Your task to perform on an android device: Go to Android settings Image 0: 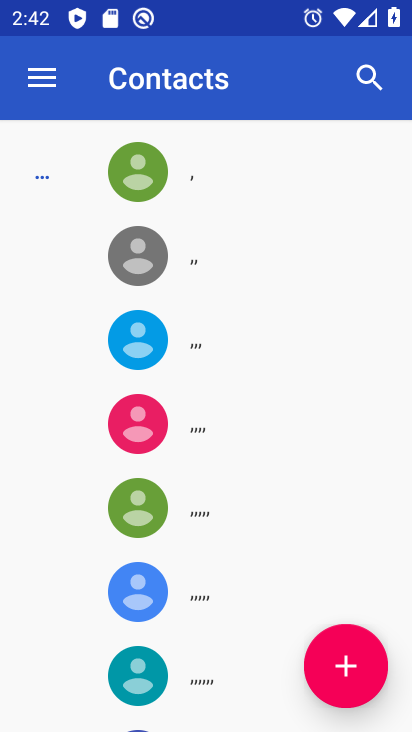
Step 0: press home button
Your task to perform on an android device: Go to Android settings Image 1: 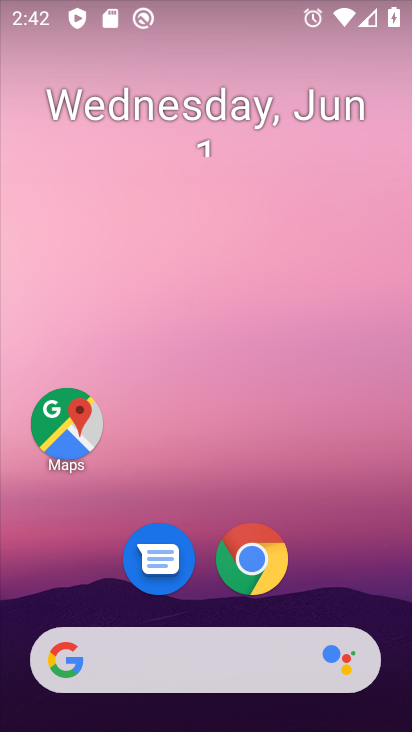
Step 1: drag from (332, 607) to (281, 13)
Your task to perform on an android device: Go to Android settings Image 2: 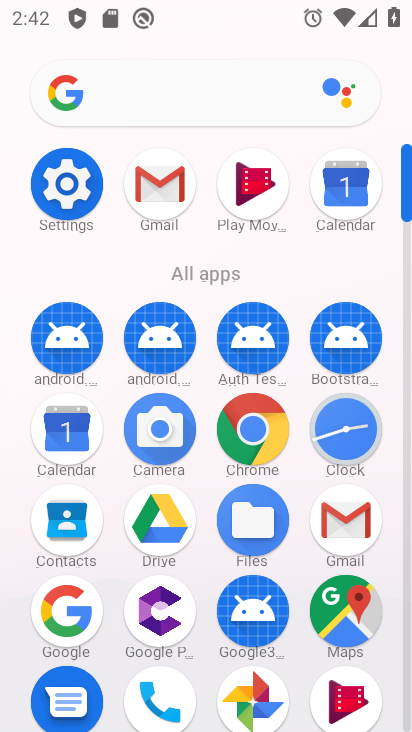
Step 2: click (74, 184)
Your task to perform on an android device: Go to Android settings Image 3: 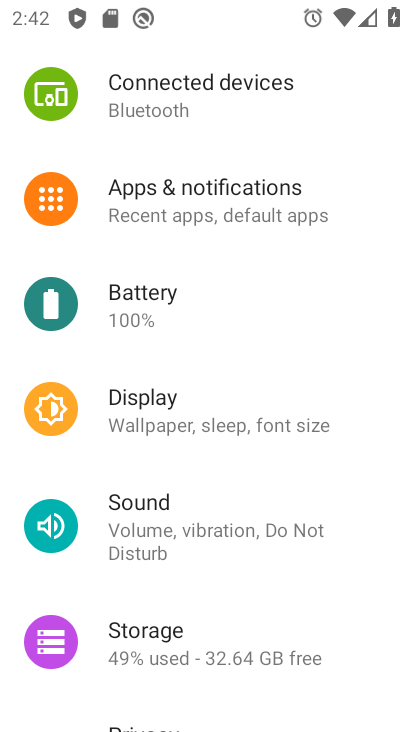
Step 3: drag from (192, 654) to (186, 54)
Your task to perform on an android device: Go to Android settings Image 4: 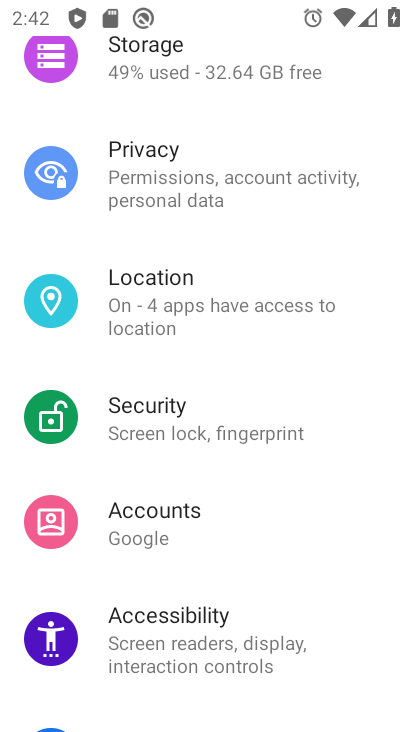
Step 4: drag from (171, 559) to (167, 0)
Your task to perform on an android device: Go to Android settings Image 5: 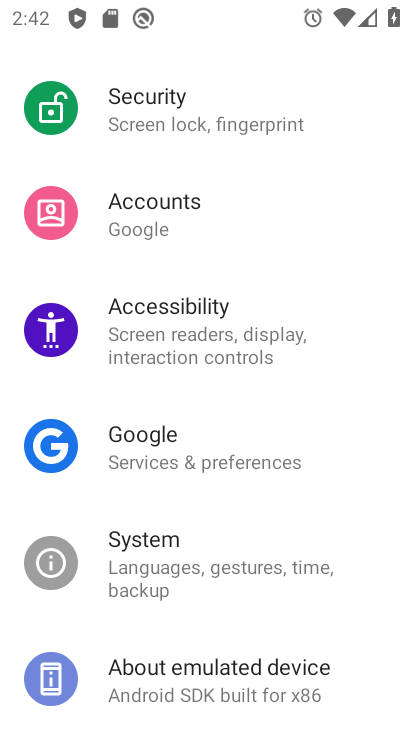
Step 5: click (154, 565)
Your task to perform on an android device: Go to Android settings Image 6: 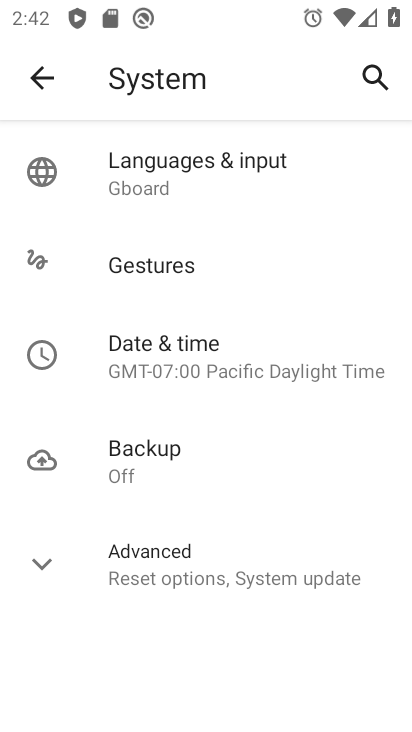
Step 6: task complete